Your task to perform on an android device: Search for vegetarian restaurants on Maps Image 0: 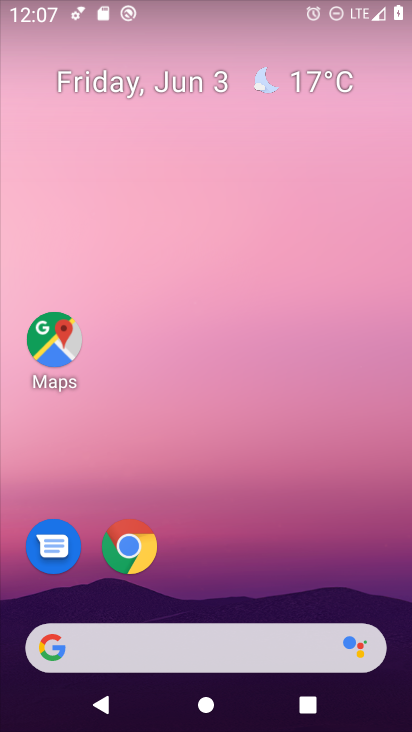
Step 0: drag from (186, 240) to (180, 64)
Your task to perform on an android device: Search for vegetarian restaurants on Maps Image 1: 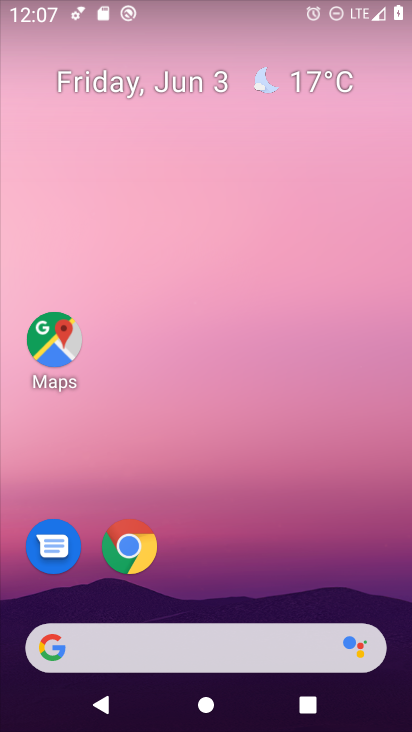
Step 1: drag from (233, 517) to (200, 0)
Your task to perform on an android device: Search for vegetarian restaurants on Maps Image 2: 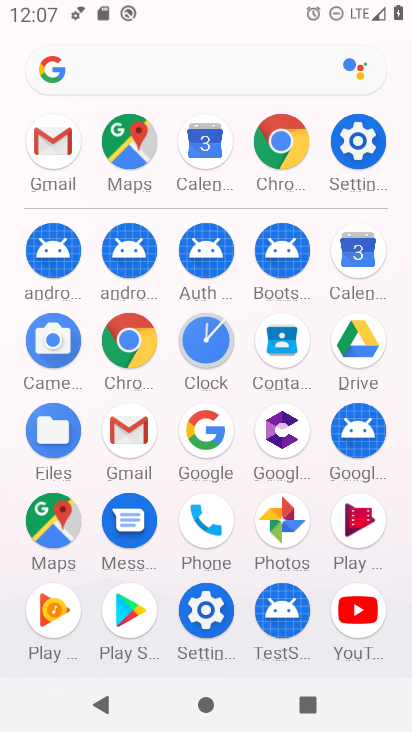
Step 2: drag from (7, 596) to (10, 319)
Your task to perform on an android device: Search for vegetarian restaurants on Maps Image 3: 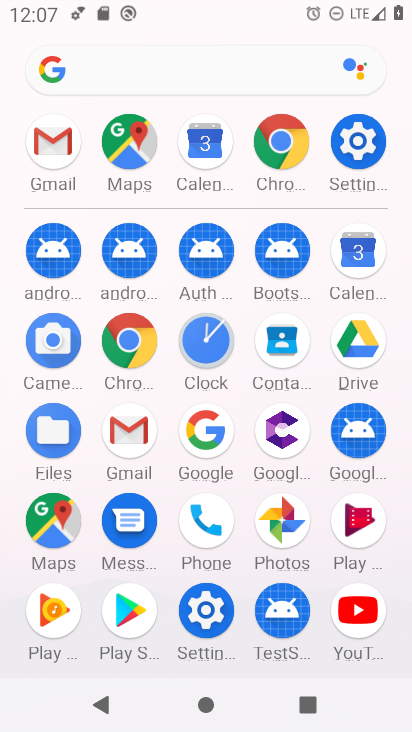
Step 3: click (52, 516)
Your task to perform on an android device: Search for vegetarian restaurants on Maps Image 4: 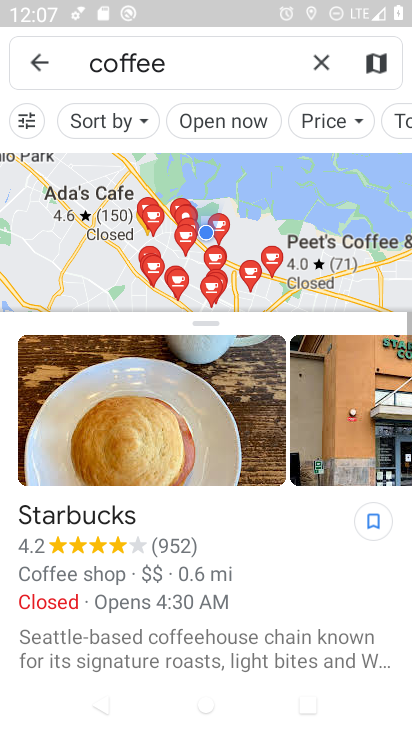
Step 4: click (321, 59)
Your task to perform on an android device: Search for vegetarian restaurants on Maps Image 5: 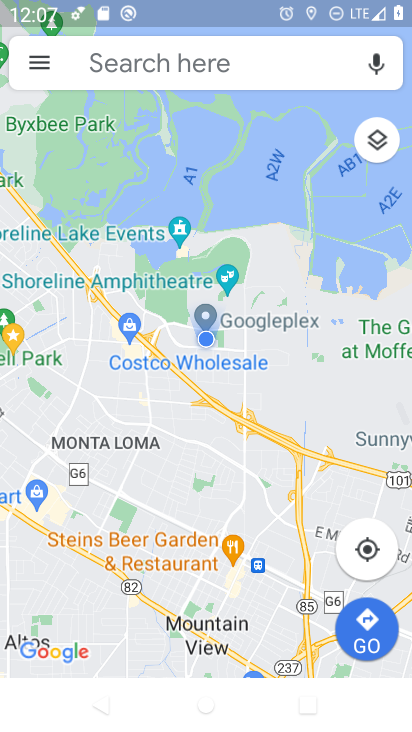
Step 5: click (299, 59)
Your task to perform on an android device: Search for vegetarian restaurants on Maps Image 6: 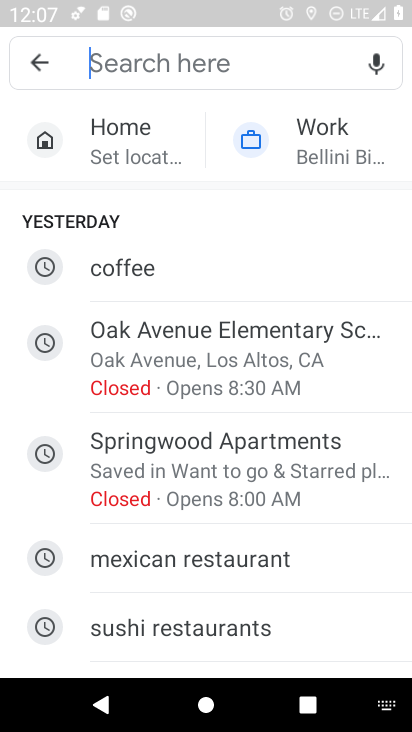
Step 6: type "vegetarian restaurants"
Your task to perform on an android device: Search for vegetarian restaurants on Maps Image 7: 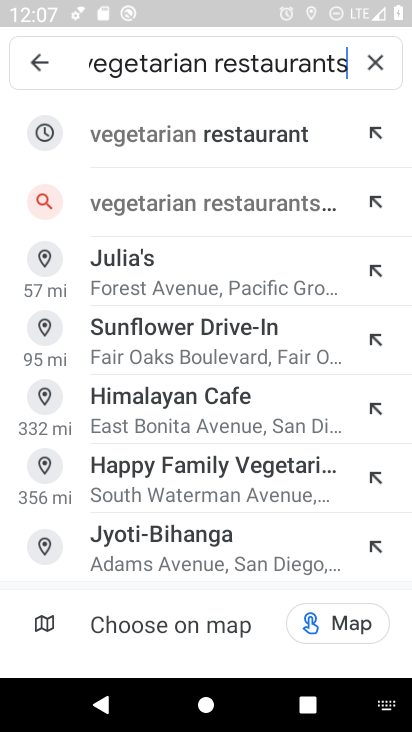
Step 7: click (215, 141)
Your task to perform on an android device: Search for vegetarian restaurants on Maps Image 8: 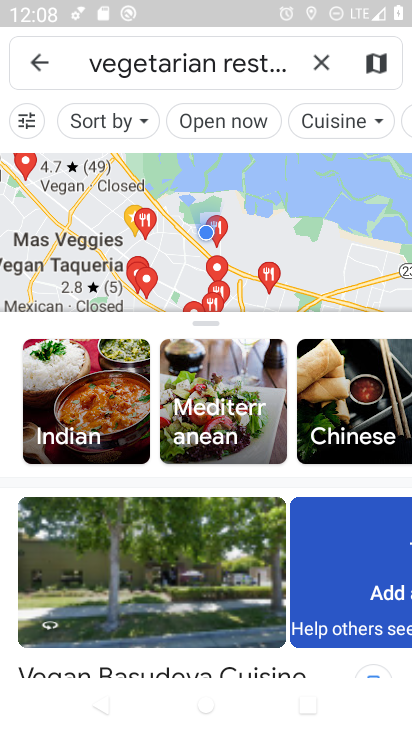
Step 8: task complete